Your task to perform on an android device: Open network settings Image 0: 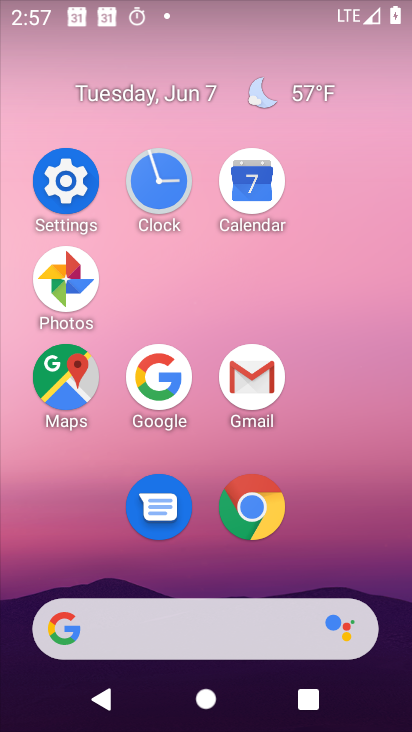
Step 0: click (87, 189)
Your task to perform on an android device: Open network settings Image 1: 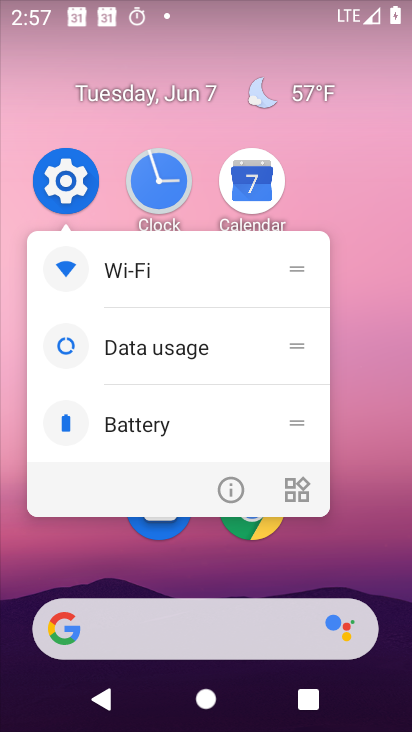
Step 1: click (85, 188)
Your task to perform on an android device: Open network settings Image 2: 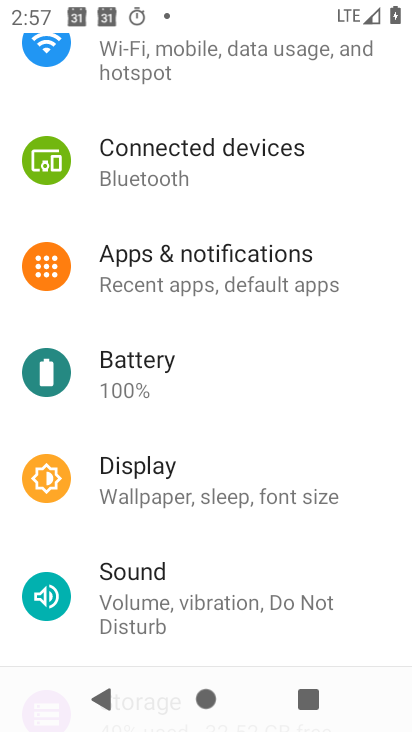
Step 2: drag from (268, 175) to (251, 535)
Your task to perform on an android device: Open network settings Image 3: 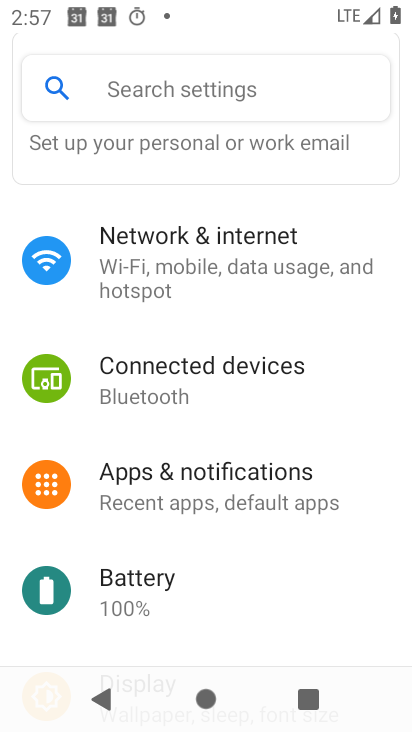
Step 3: click (233, 247)
Your task to perform on an android device: Open network settings Image 4: 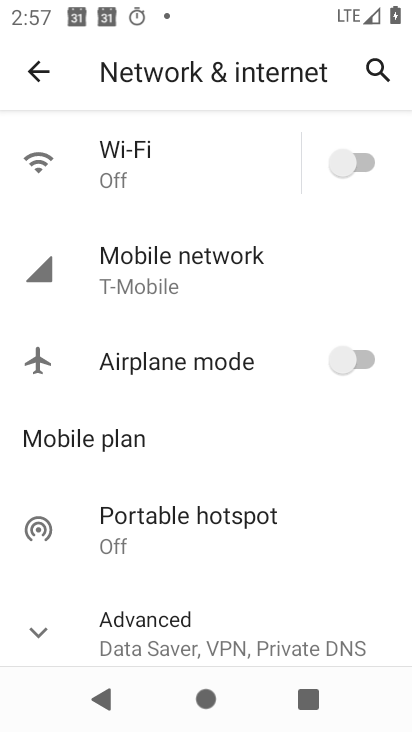
Step 4: click (229, 259)
Your task to perform on an android device: Open network settings Image 5: 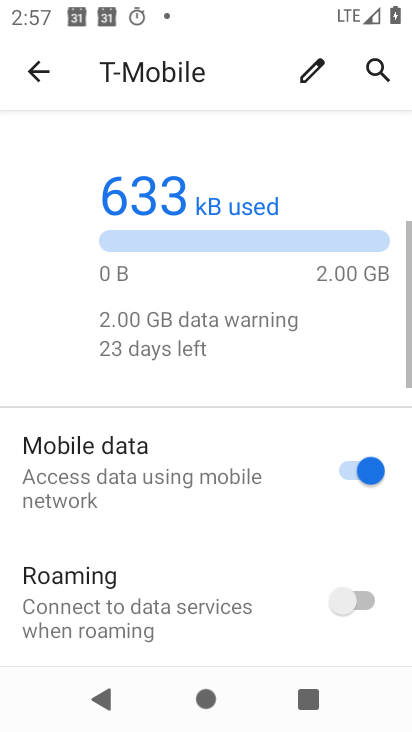
Step 5: task complete